Your task to perform on an android device: Open the web browser Image 0: 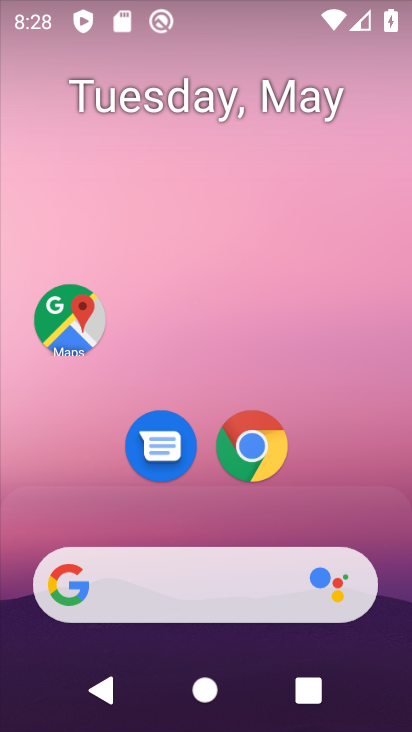
Step 0: drag from (167, 488) to (287, 18)
Your task to perform on an android device: Open the web browser Image 1: 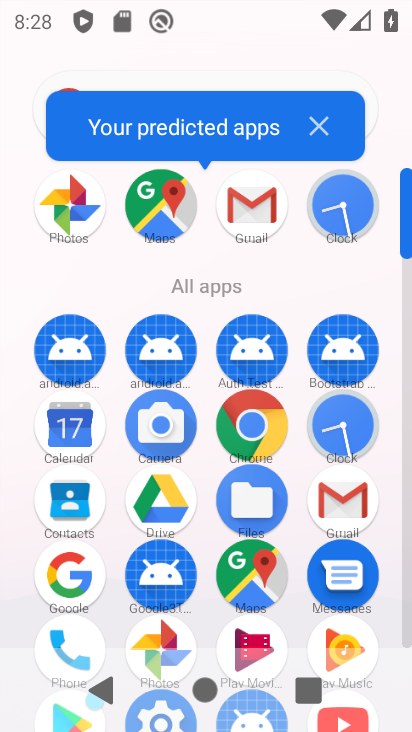
Step 1: drag from (145, 655) to (228, 430)
Your task to perform on an android device: Open the web browser Image 2: 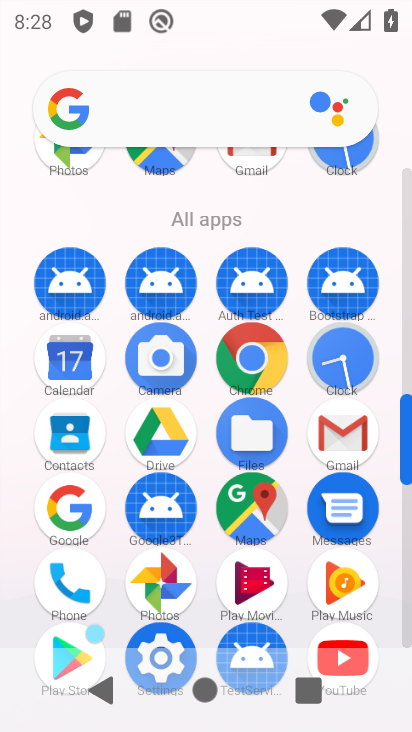
Step 2: click (80, 511)
Your task to perform on an android device: Open the web browser Image 3: 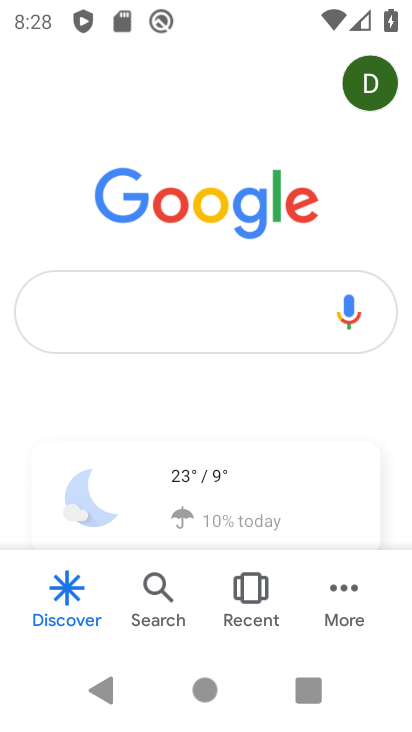
Step 3: task complete